Your task to perform on an android device: Search for the new nintendo switch on Walmart. Image 0: 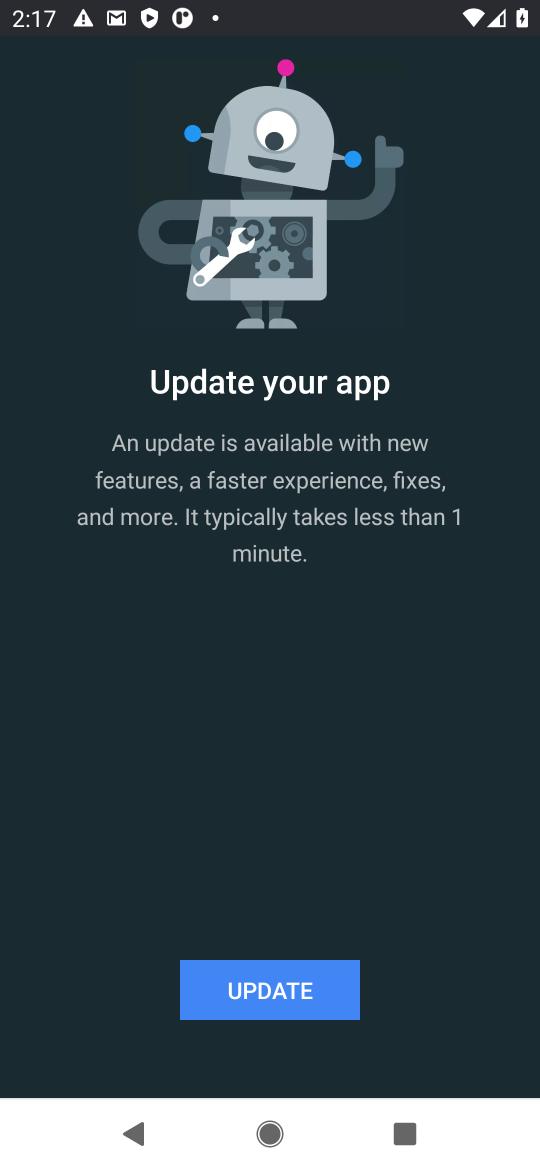
Step 0: press home button
Your task to perform on an android device: Search for the new nintendo switch on Walmart. Image 1: 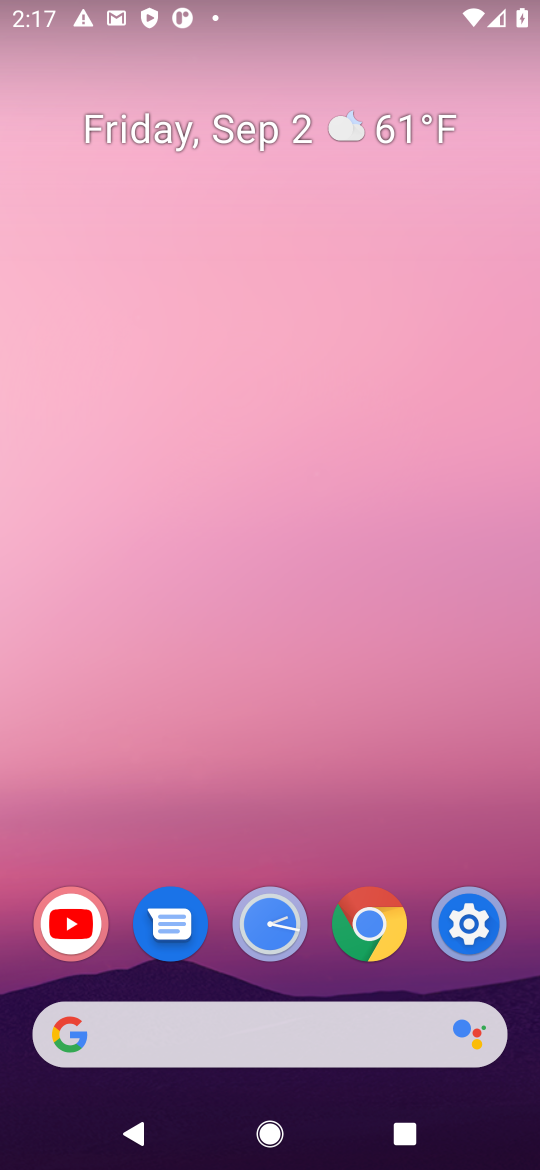
Step 1: click (389, 1033)
Your task to perform on an android device: Search for the new nintendo switch on Walmart. Image 2: 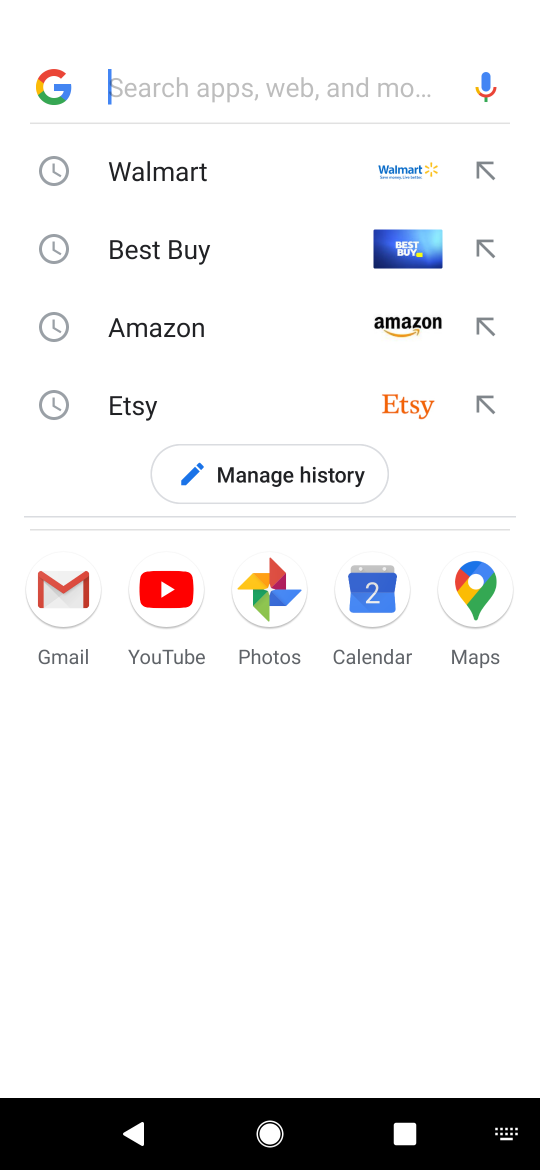
Step 2: press enter
Your task to perform on an android device: Search for the new nintendo switch on Walmart. Image 3: 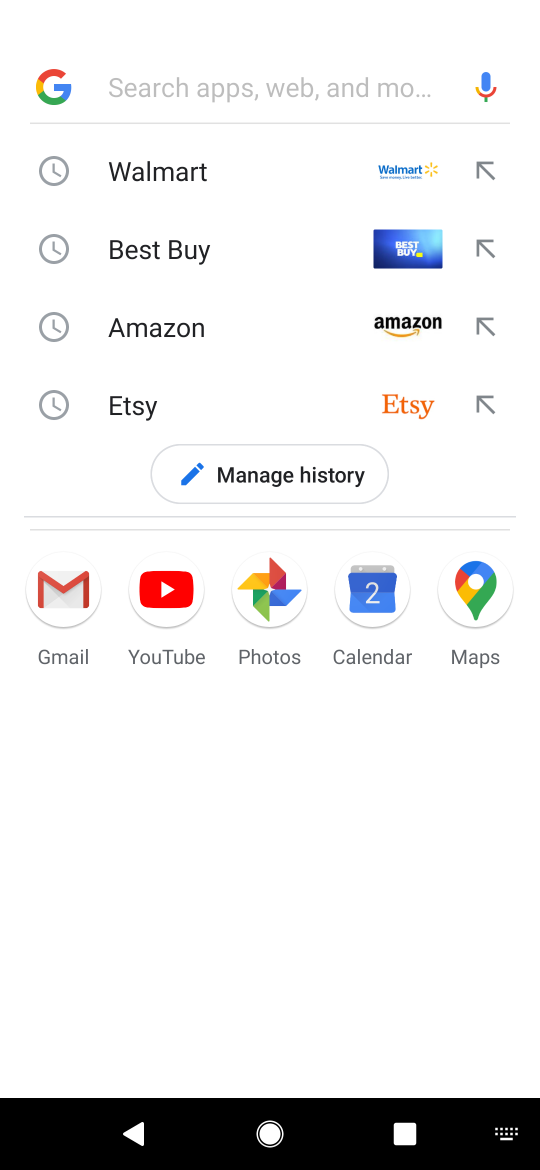
Step 3: type "walmart"
Your task to perform on an android device: Search for the new nintendo switch on Walmart. Image 4: 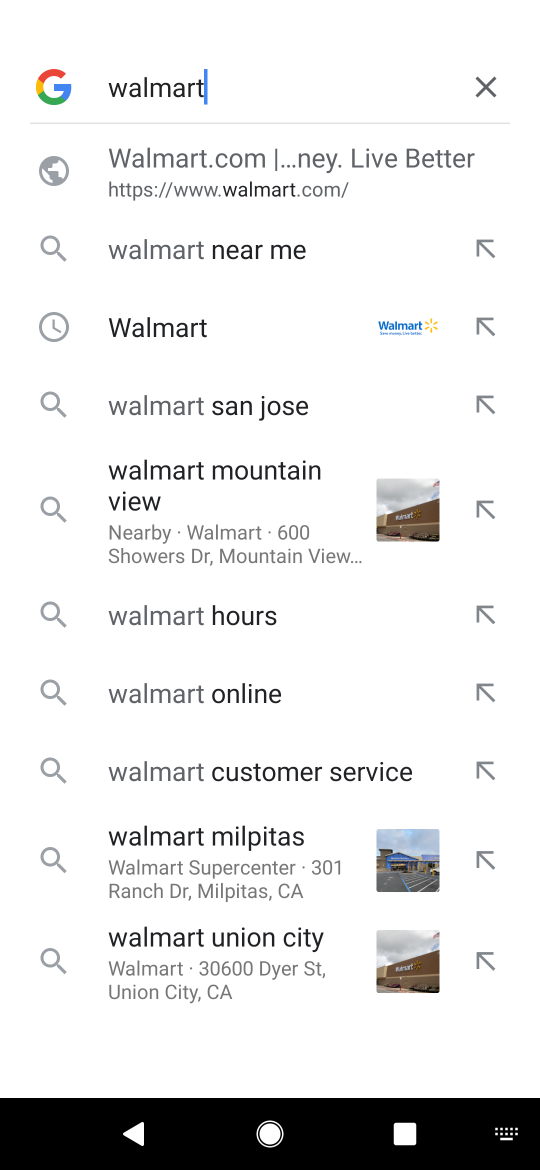
Step 4: click (236, 330)
Your task to perform on an android device: Search for the new nintendo switch on Walmart. Image 5: 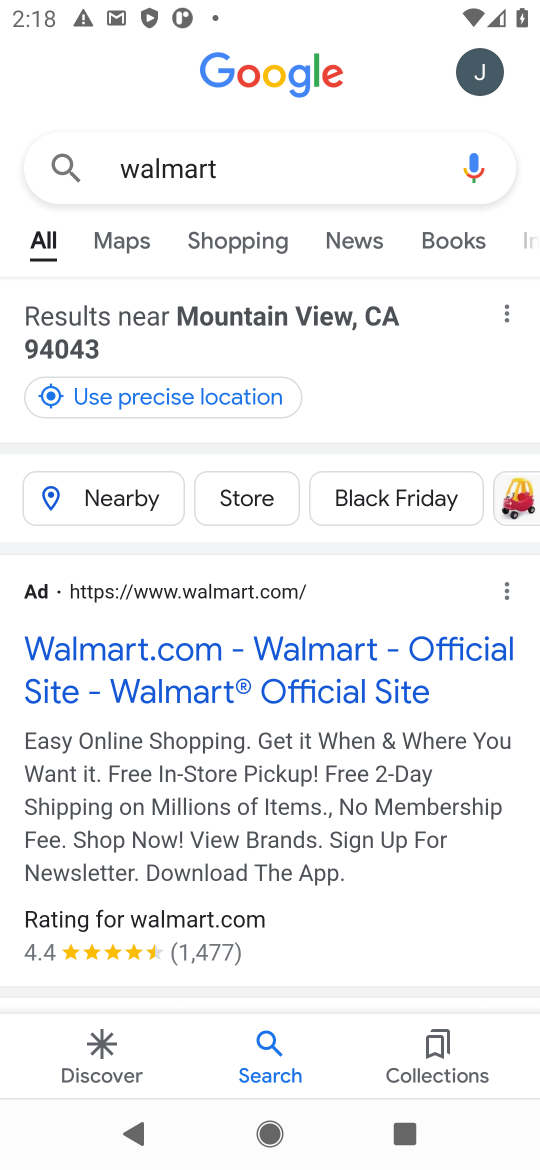
Step 5: click (408, 666)
Your task to perform on an android device: Search for the new nintendo switch on Walmart. Image 6: 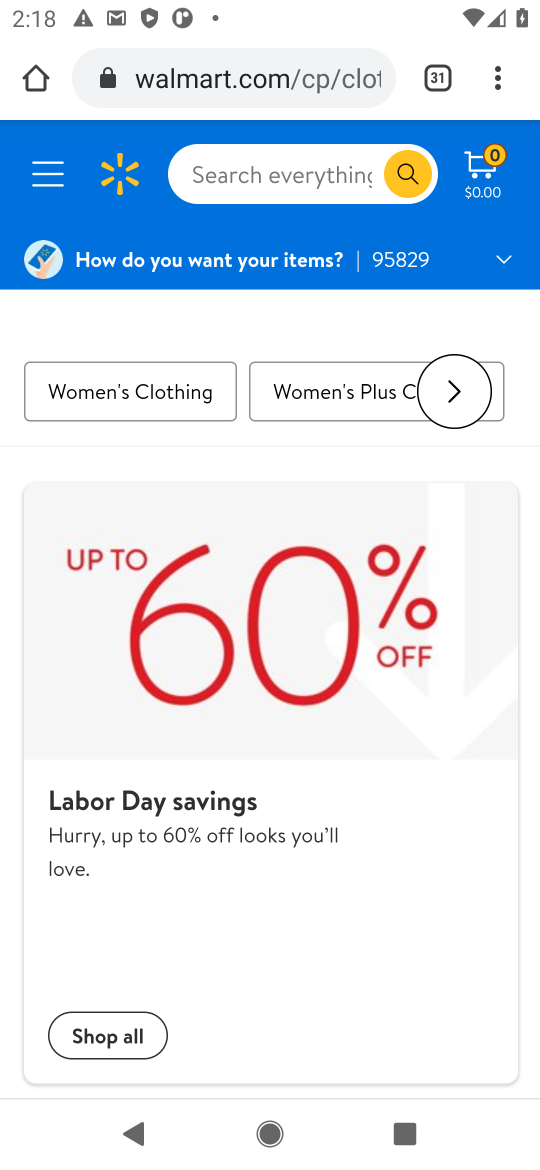
Step 6: click (311, 166)
Your task to perform on an android device: Search for the new nintendo switch on Walmart. Image 7: 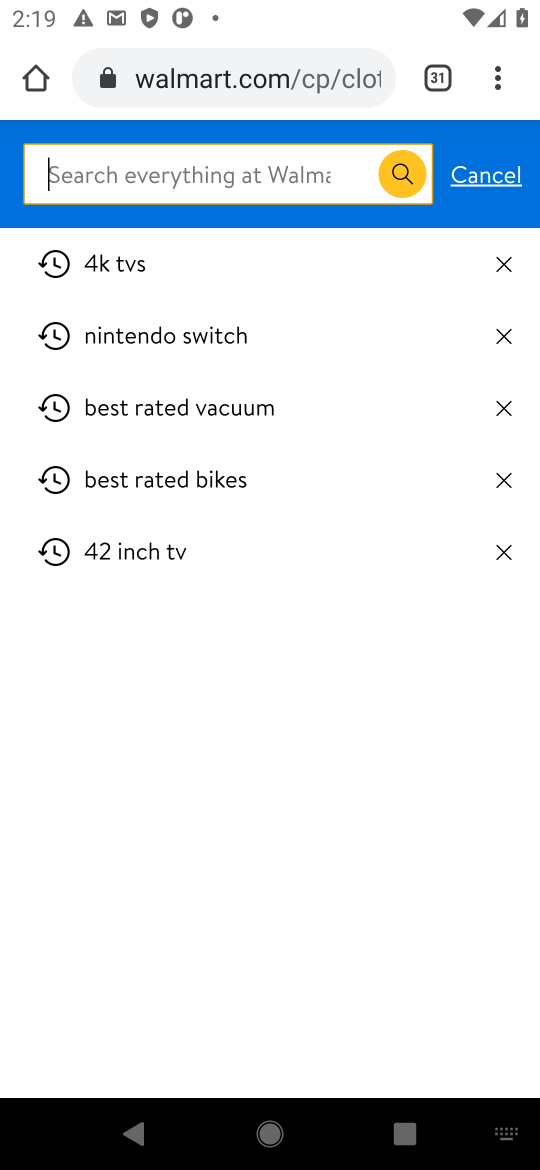
Step 7: type "nintendo switch "
Your task to perform on an android device: Search for the new nintendo switch on Walmart. Image 8: 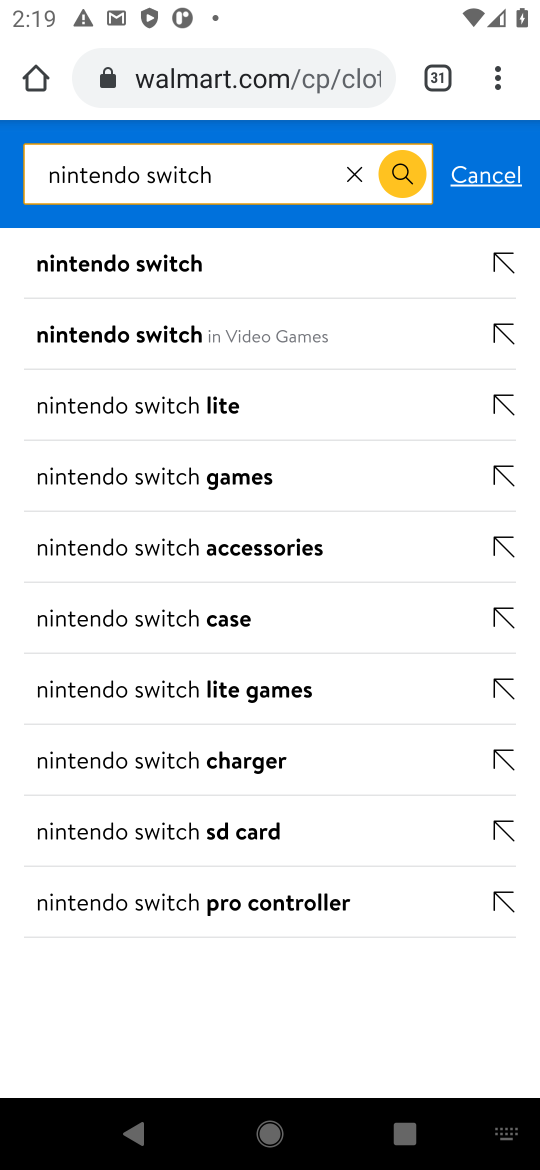
Step 8: click (218, 273)
Your task to perform on an android device: Search for the new nintendo switch on Walmart. Image 9: 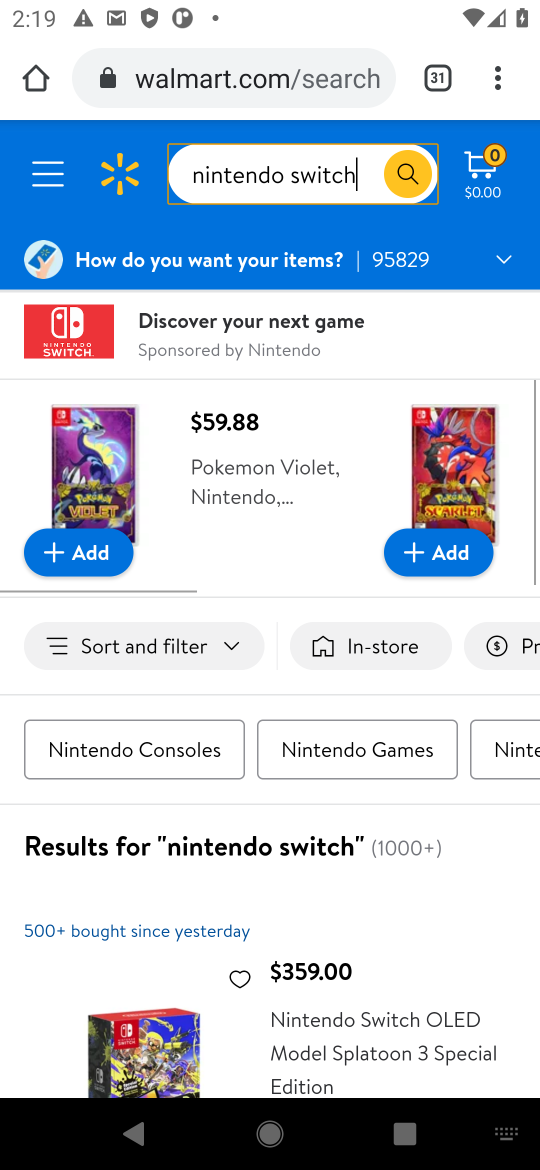
Step 9: task complete